Your task to perform on an android device: Open Chrome and go to the settings page Image 0: 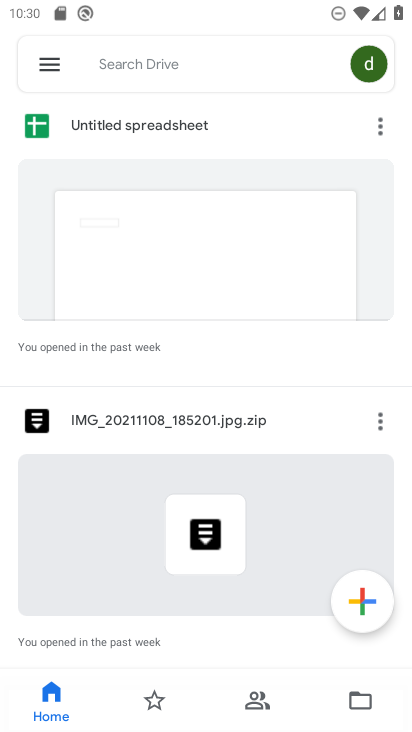
Step 0: press back button
Your task to perform on an android device: Open Chrome and go to the settings page Image 1: 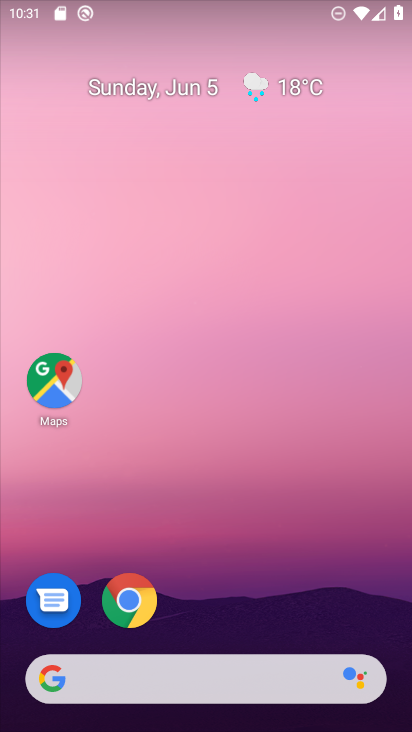
Step 1: click (153, 591)
Your task to perform on an android device: Open Chrome and go to the settings page Image 2: 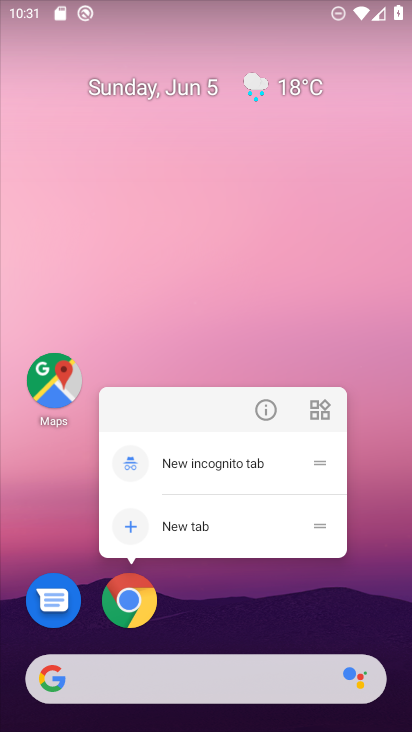
Step 2: click (113, 573)
Your task to perform on an android device: Open Chrome and go to the settings page Image 3: 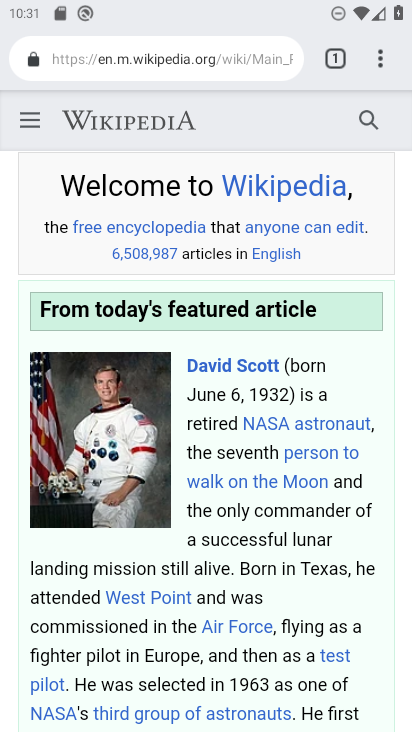
Step 3: task complete